Your task to perform on an android device: open app "Google Calendar" Image 0: 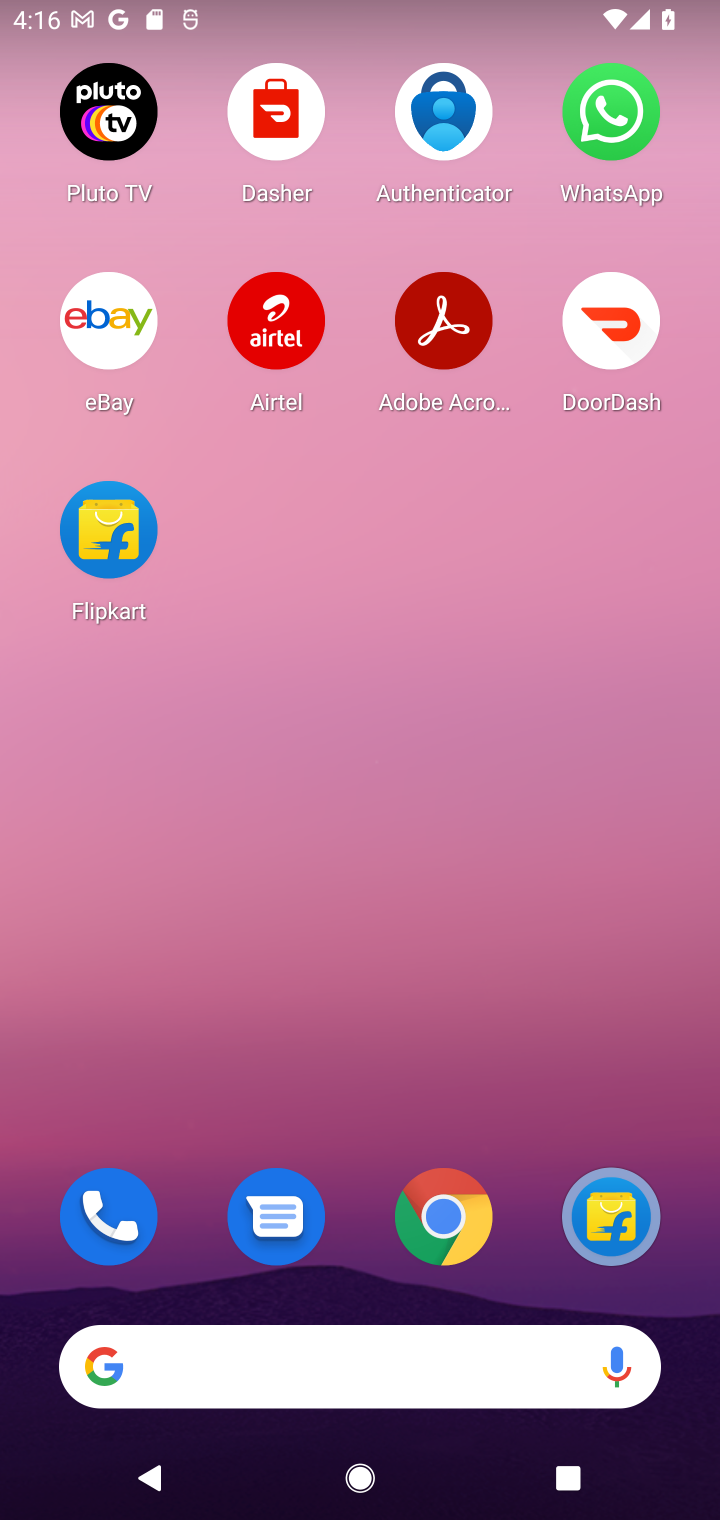
Step 0: drag from (378, 973) to (420, 414)
Your task to perform on an android device: open app "Google Calendar" Image 1: 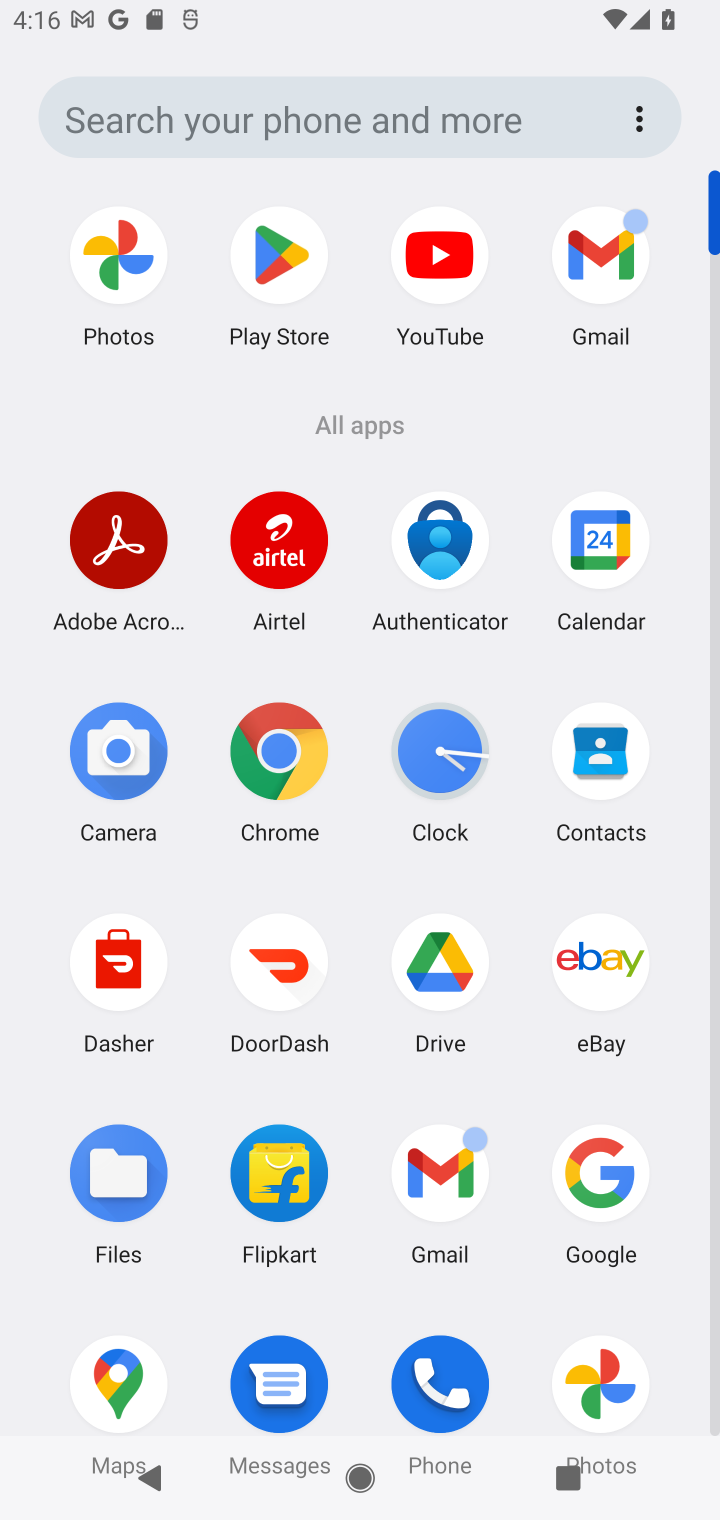
Step 1: click (308, 261)
Your task to perform on an android device: open app "Google Calendar" Image 2: 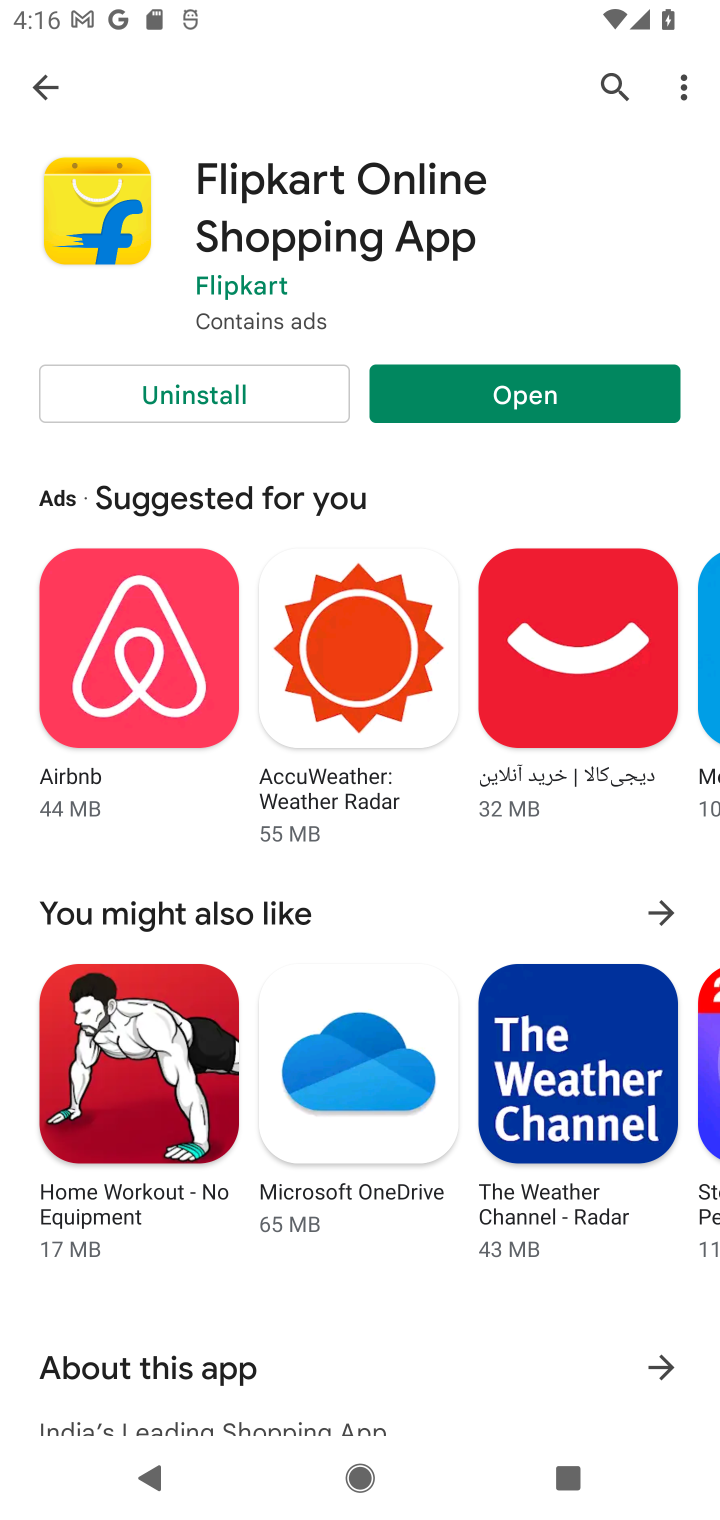
Step 2: click (605, 84)
Your task to perform on an android device: open app "Google Calendar" Image 3: 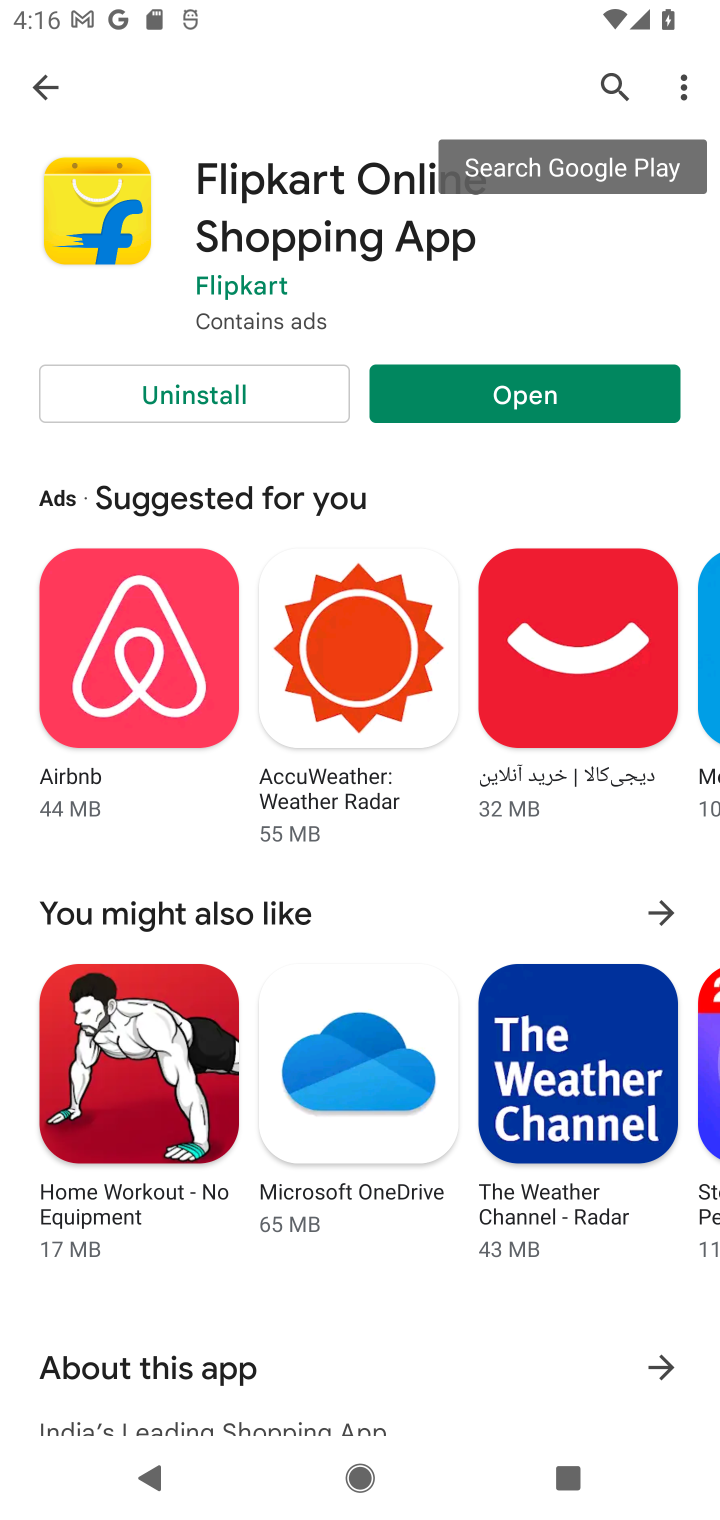
Step 3: click (611, 79)
Your task to perform on an android device: open app "Google Calendar" Image 4: 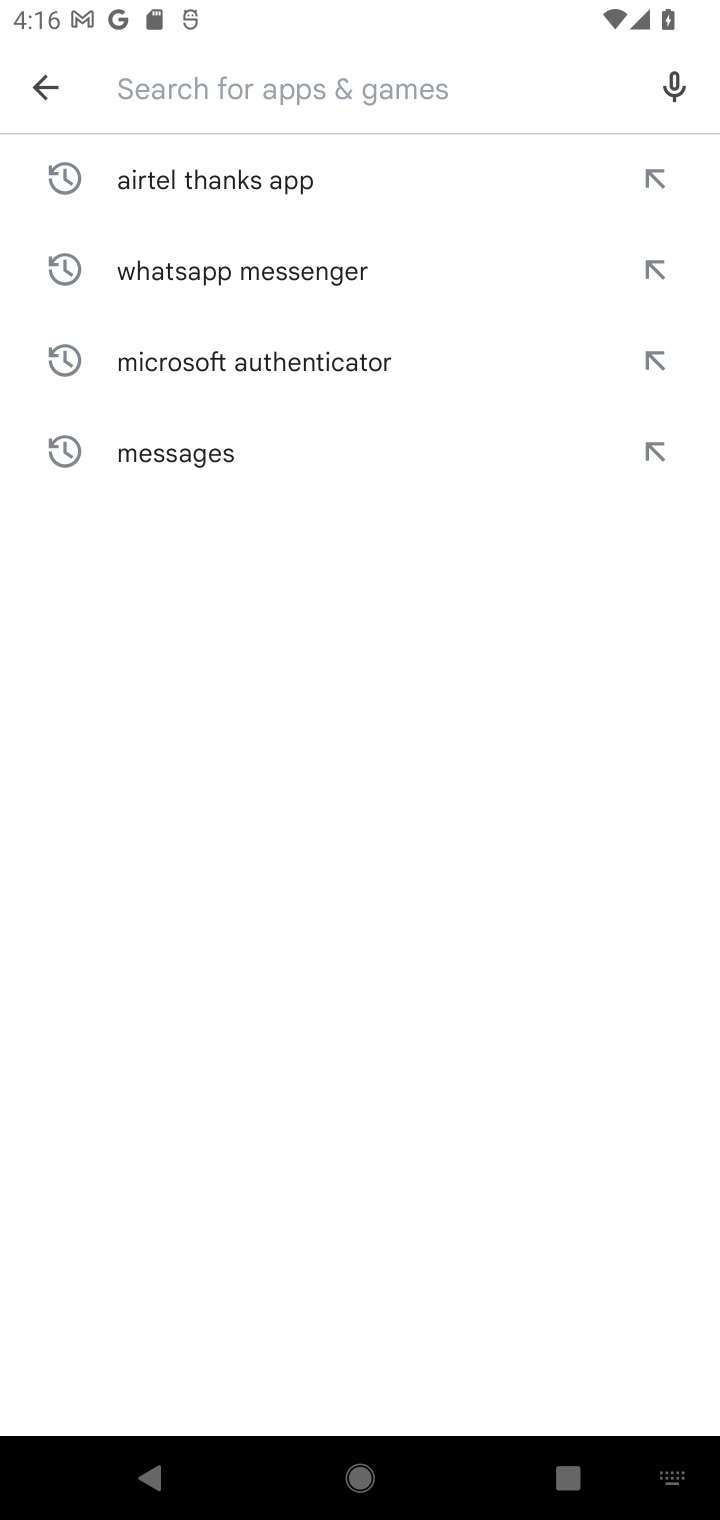
Step 4: type "Google Calendar"
Your task to perform on an android device: open app "Google Calendar" Image 5: 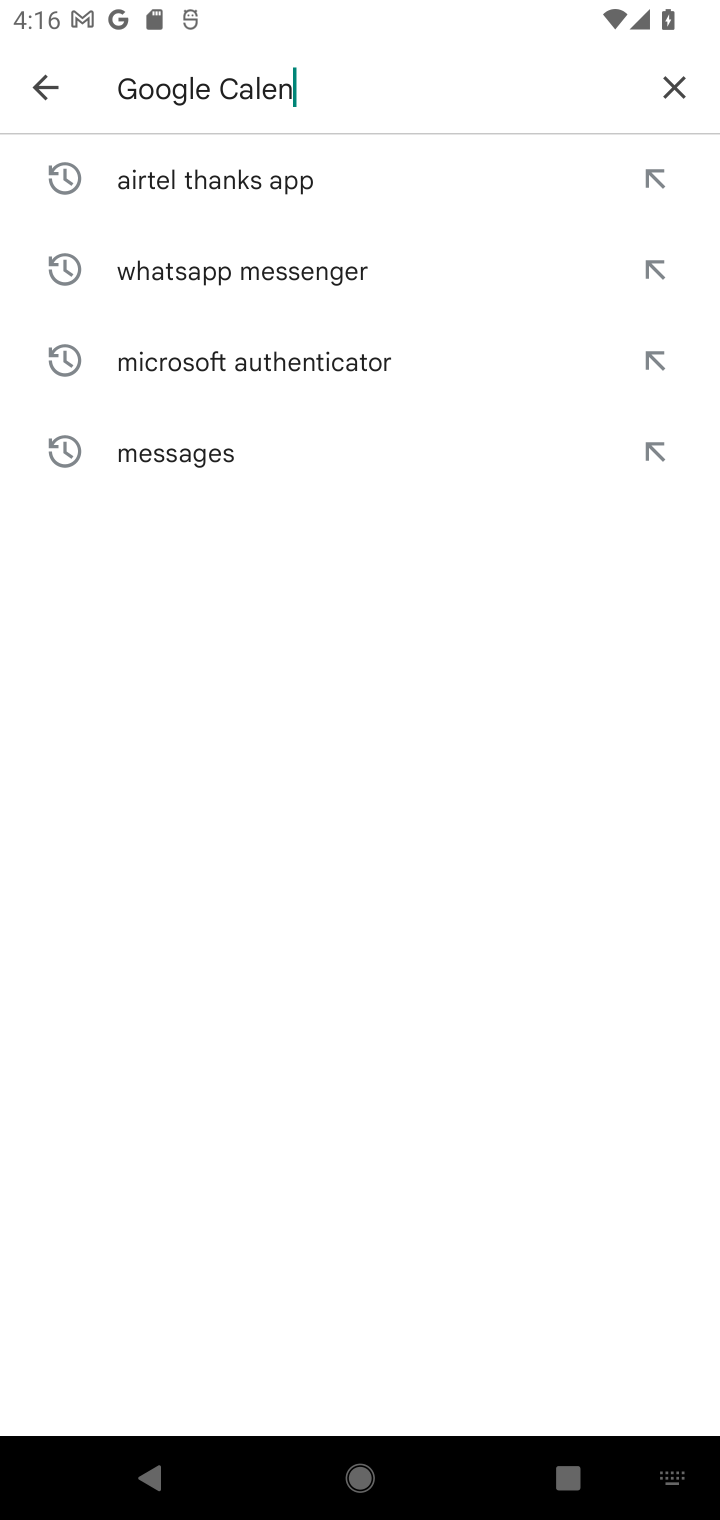
Step 5: type ""
Your task to perform on an android device: open app "Google Calendar" Image 6: 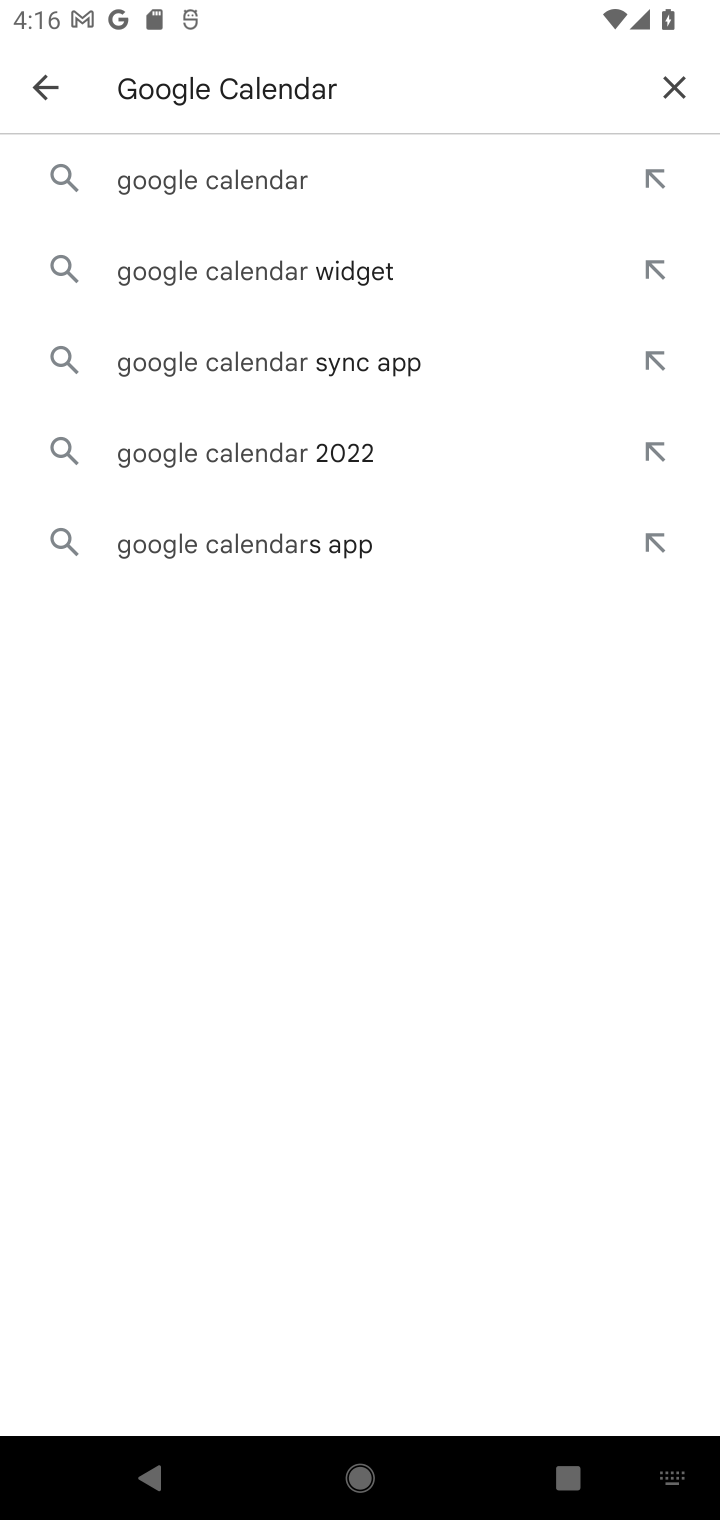
Step 6: click (290, 183)
Your task to perform on an android device: open app "Google Calendar" Image 7: 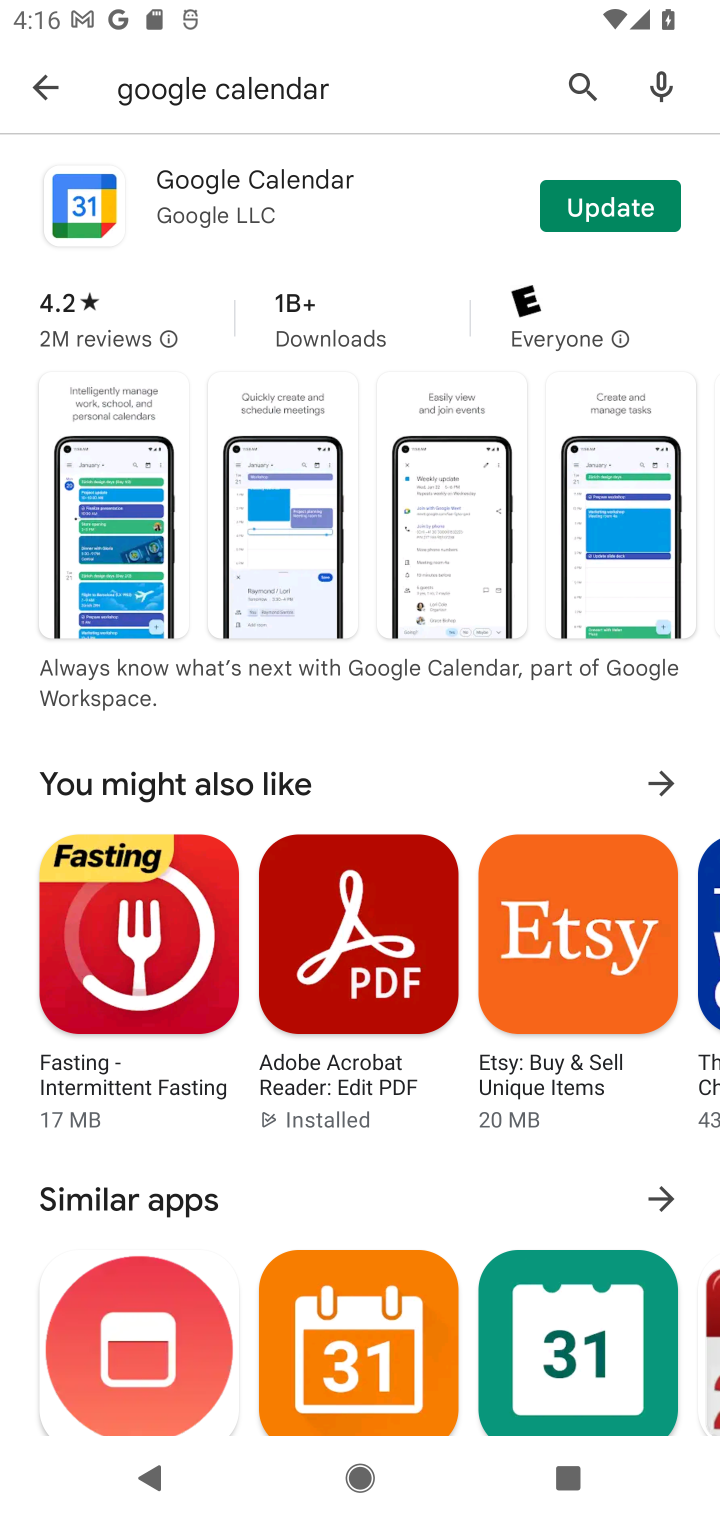
Step 7: click (411, 183)
Your task to perform on an android device: open app "Google Calendar" Image 8: 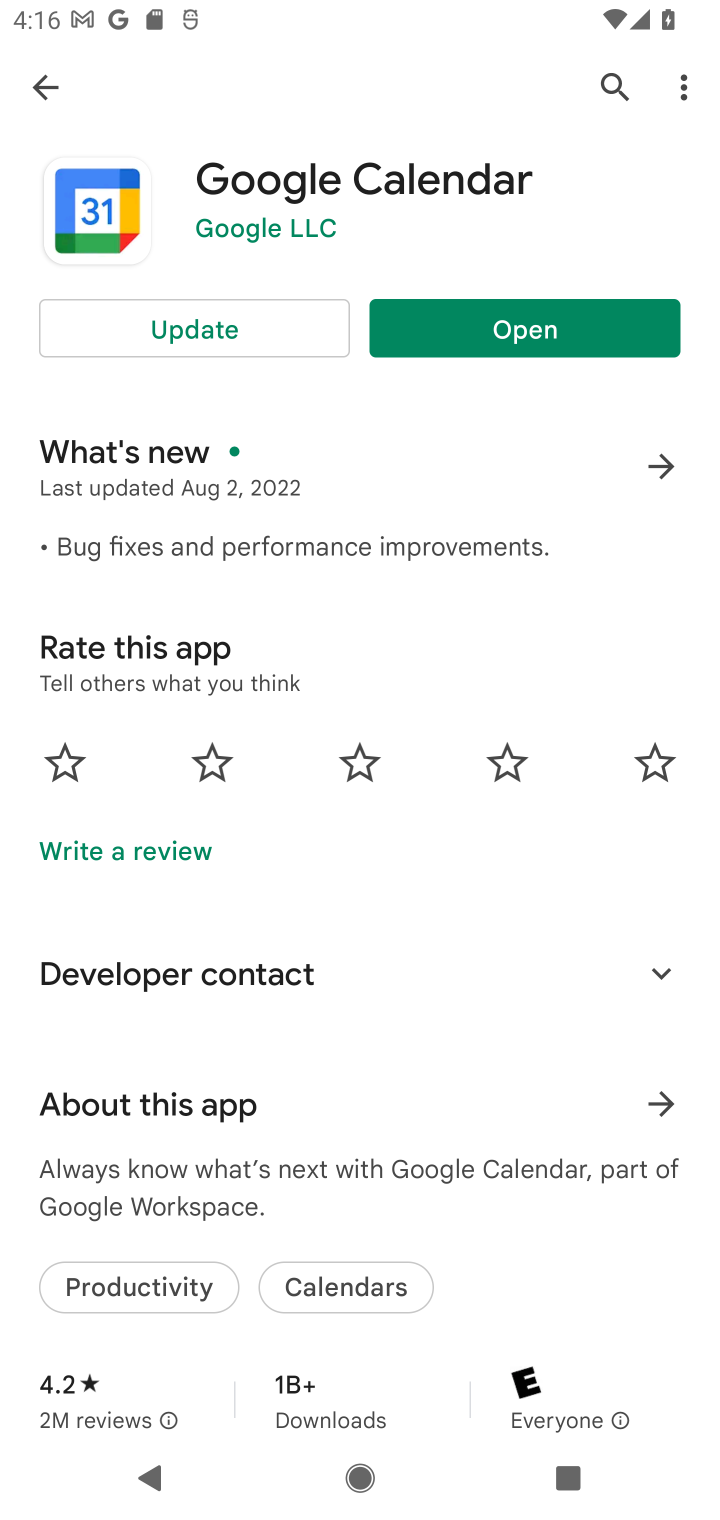
Step 8: click (445, 340)
Your task to perform on an android device: open app "Google Calendar" Image 9: 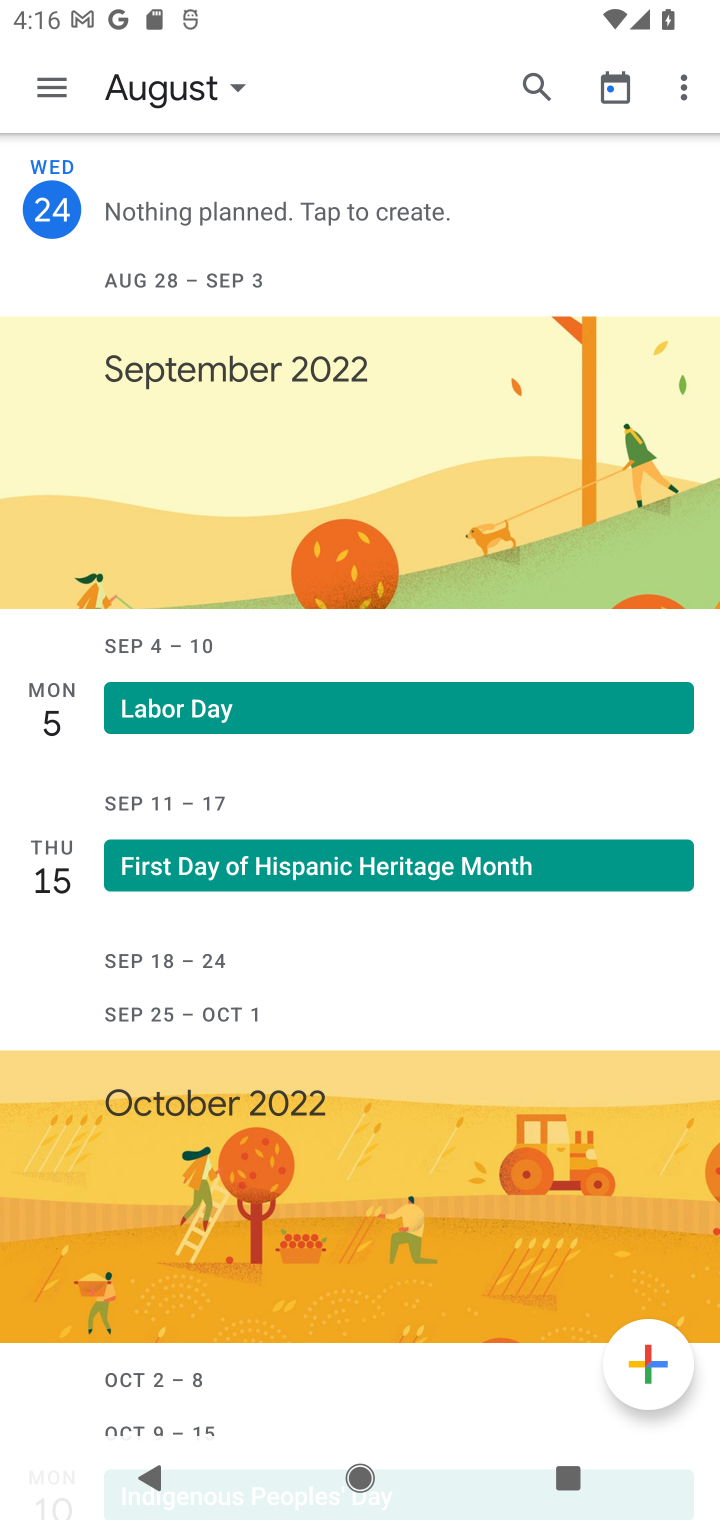
Step 9: task complete